Your task to perform on an android device: Open calendar and show me the third week of next month Image 0: 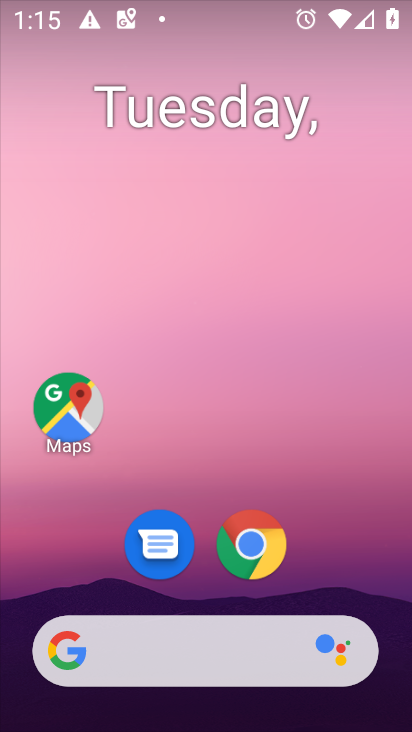
Step 0: drag from (352, 556) to (257, 24)
Your task to perform on an android device: Open calendar and show me the third week of next month Image 1: 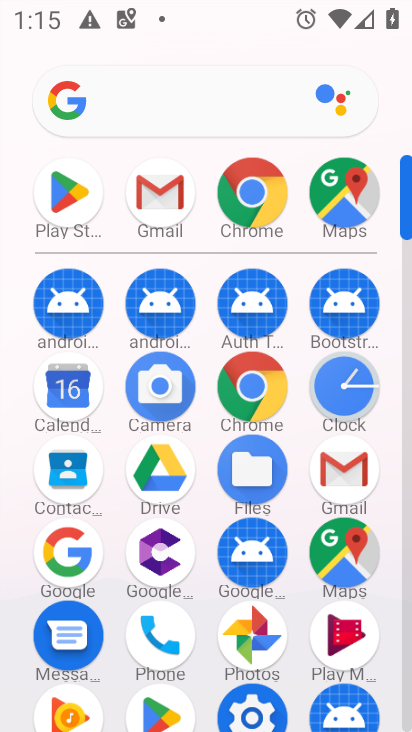
Step 1: click (80, 377)
Your task to perform on an android device: Open calendar and show me the third week of next month Image 2: 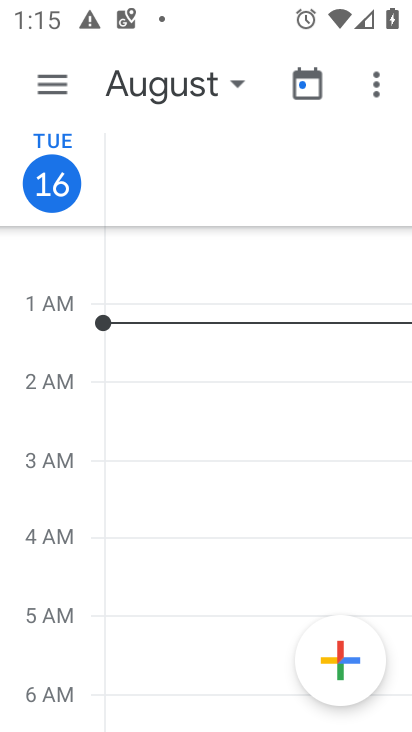
Step 2: click (178, 78)
Your task to perform on an android device: Open calendar and show me the third week of next month Image 3: 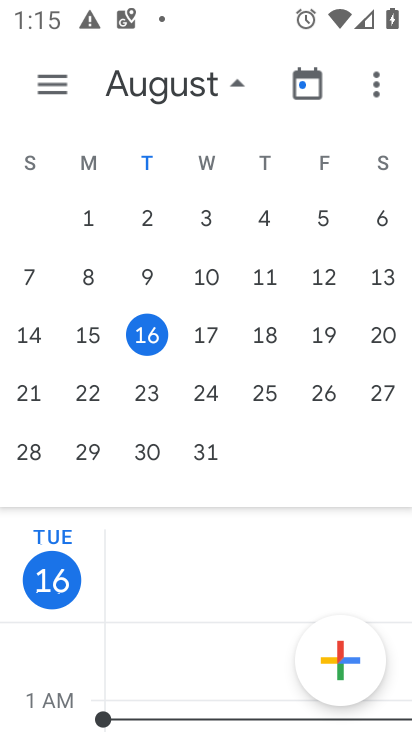
Step 3: drag from (369, 341) to (12, 321)
Your task to perform on an android device: Open calendar and show me the third week of next month Image 4: 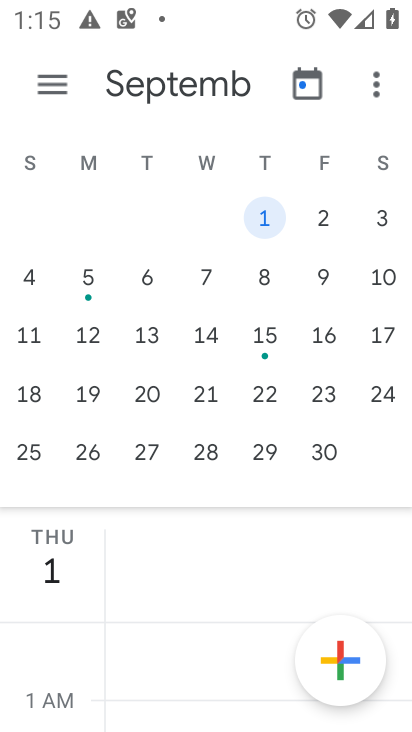
Step 4: click (87, 385)
Your task to perform on an android device: Open calendar and show me the third week of next month Image 5: 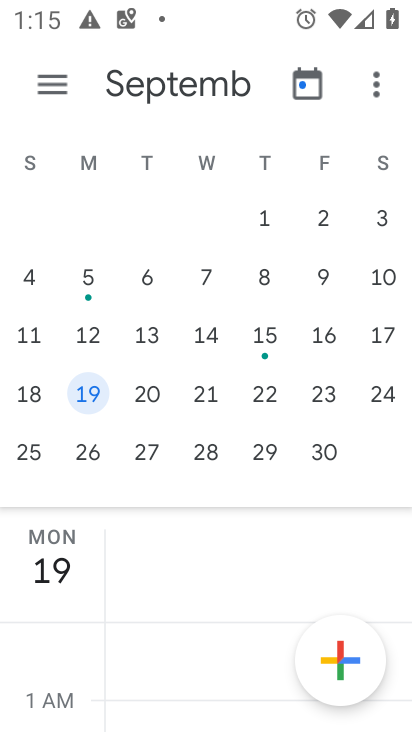
Step 5: task complete